Your task to perform on an android device: toggle wifi Image 0: 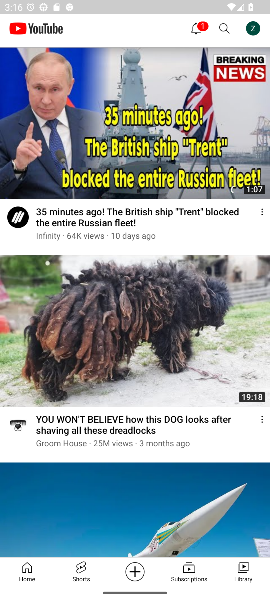
Step 0: press home button
Your task to perform on an android device: toggle wifi Image 1: 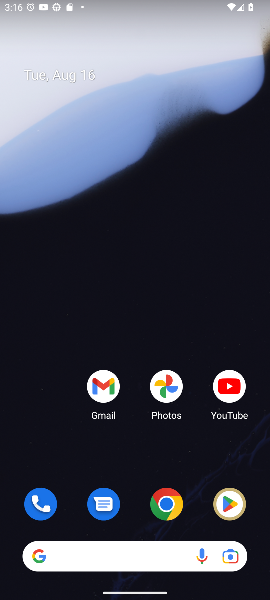
Step 1: drag from (138, 456) to (127, 16)
Your task to perform on an android device: toggle wifi Image 2: 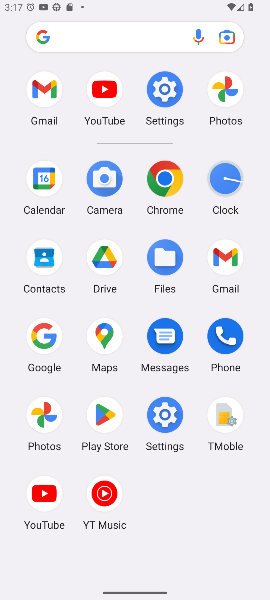
Step 2: click (164, 87)
Your task to perform on an android device: toggle wifi Image 3: 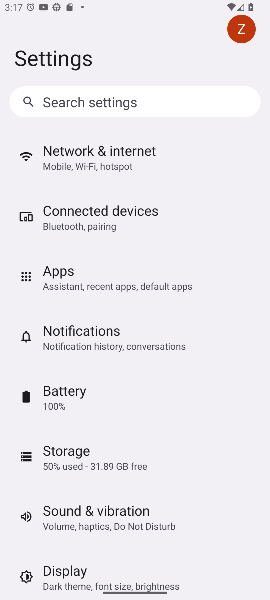
Step 3: click (94, 148)
Your task to perform on an android device: toggle wifi Image 4: 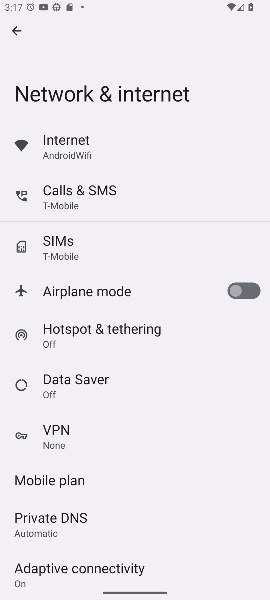
Step 4: click (59, 137)
Your task to perform on an android device: toggle wifi Image 5: 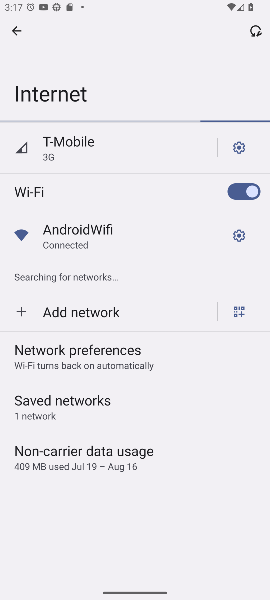
Step 5: click (242, 195)
Your task to perform on an android device: toggle wifi Image 6: 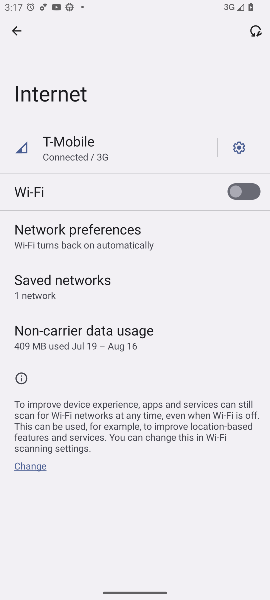
Step 6: task complete